Your task to perform on an android device: add a contact in the contacts app Image 0: 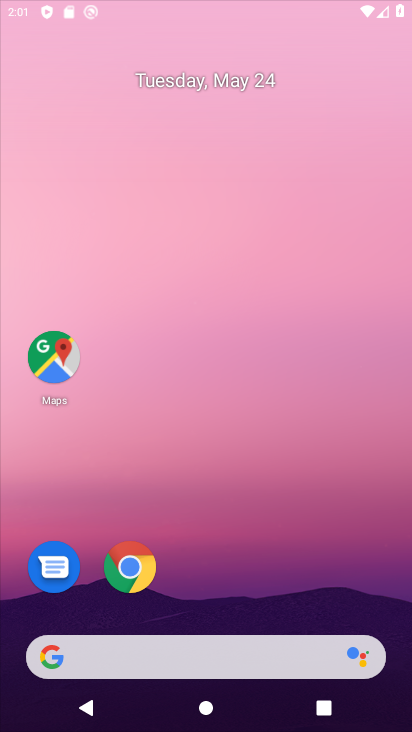
Step 0: press back button
Your task to perform on an android device: add a contact in the contacts app Image 1: 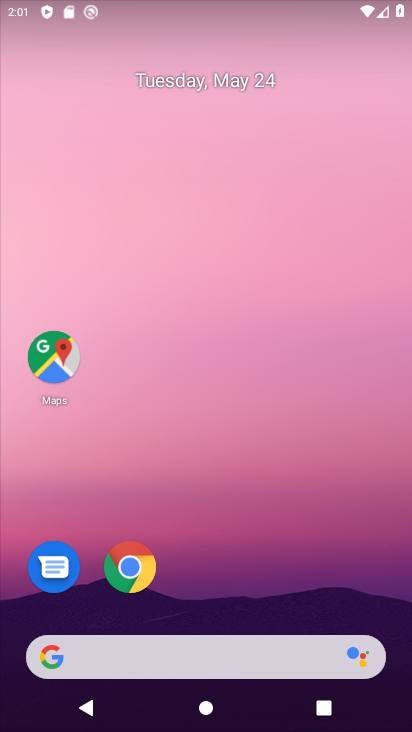
Step 1: press home button
Your task to perform on an android device: add a contact in the contacts app Image 2: 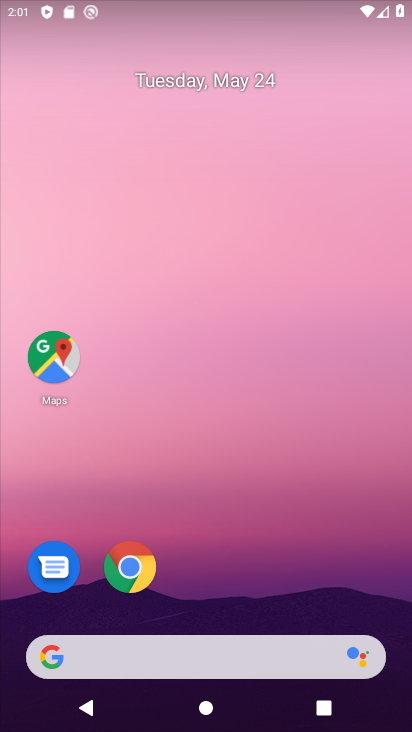
Step 2: drag from (235, 575) to (300, 88)
Your task to perform on an android device: add a contact in the contacts app Image 3: 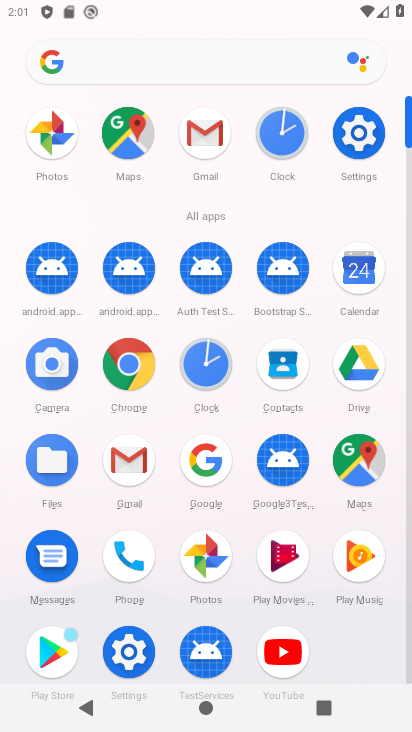
Step 3: click (281, 363)
Your task to perform on an android device: add a contact in the contacts app Image 4: 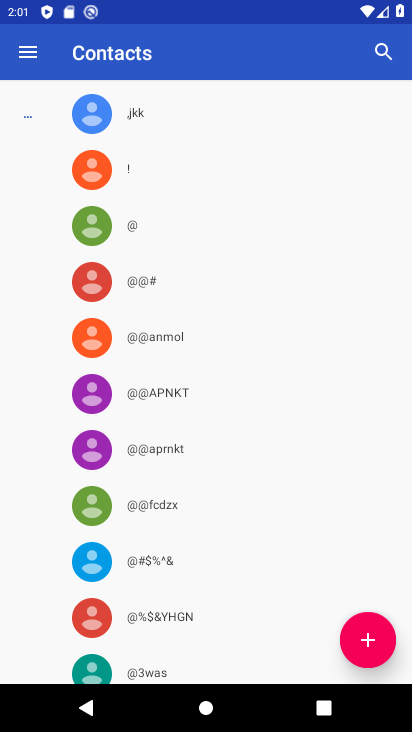
Step 4: click (364, 633)
Your task to perform on an android device: add a contact in the contacts app Image 5: 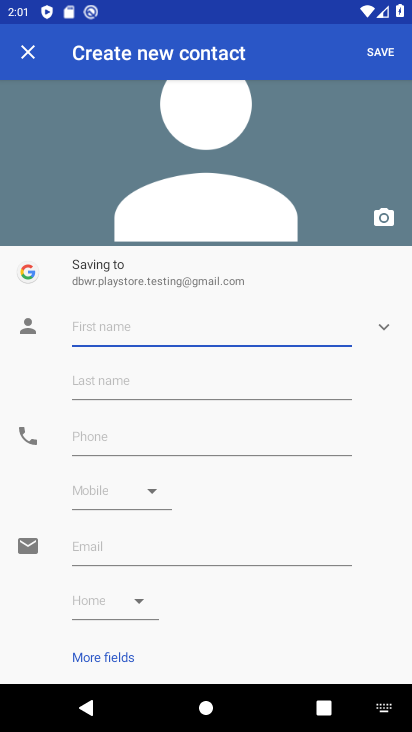
Step 5: click (138, 331)
Your task to perform on an android device: add a contact in the contacts app Image 6: 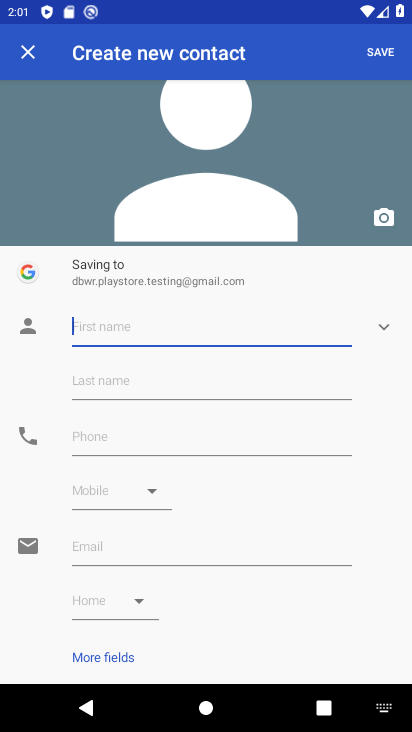
Step 6: type "vffb"
Your task to perform on an android device: add a contact in the contacts app Image 7: 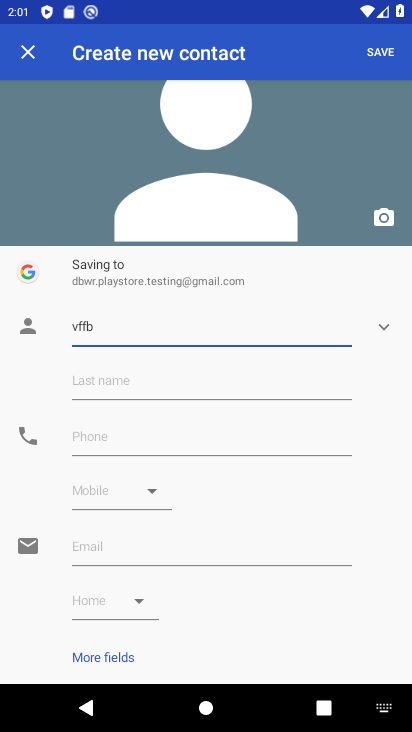
Step 7: click (100, 434)
Your task to perform on an android device: add a contact in the contacts app Image 8: 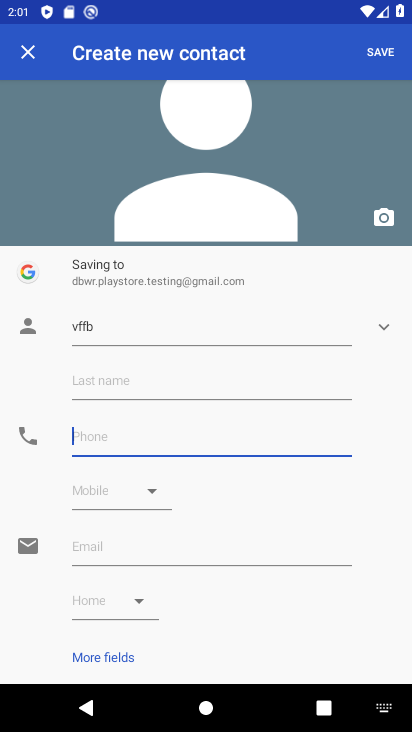
Step 8: type "86868"
Your task to perform on an android device: add a contact in the contacts app Image 9: 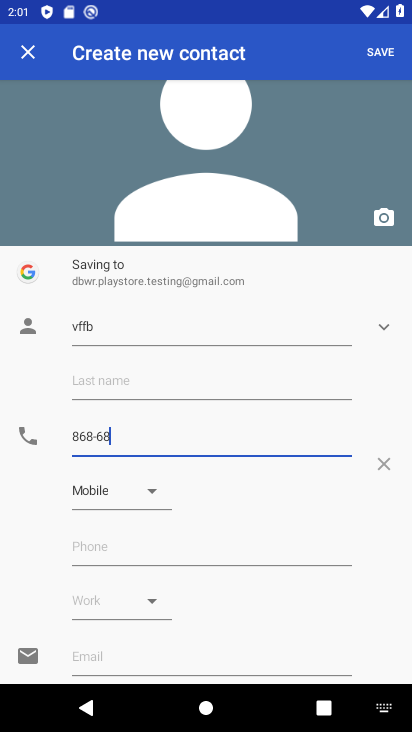
Step 9: click (379, 57)
Your task to perform on an android device: add a contact in the contacts app Image 10: 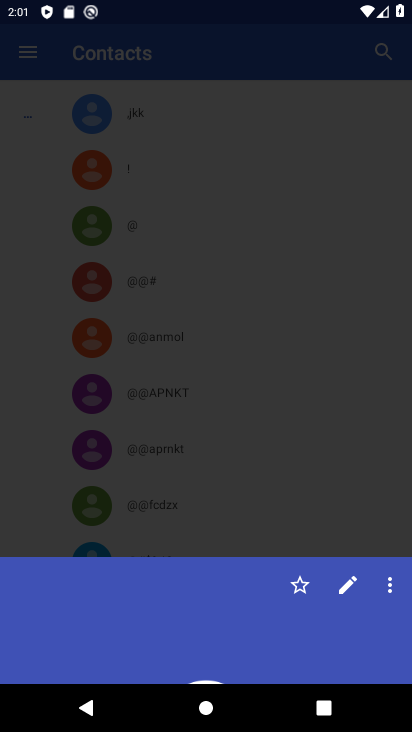
Step 10: task complete